Your task to perform on an android device: create a new album in the google photos Image 0: 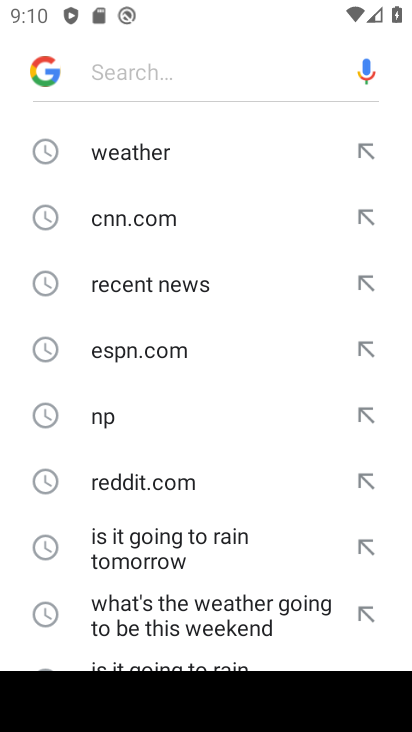
Step 0: press home button
Your task to perform on an android device: create a new album in the google photos Image 1: 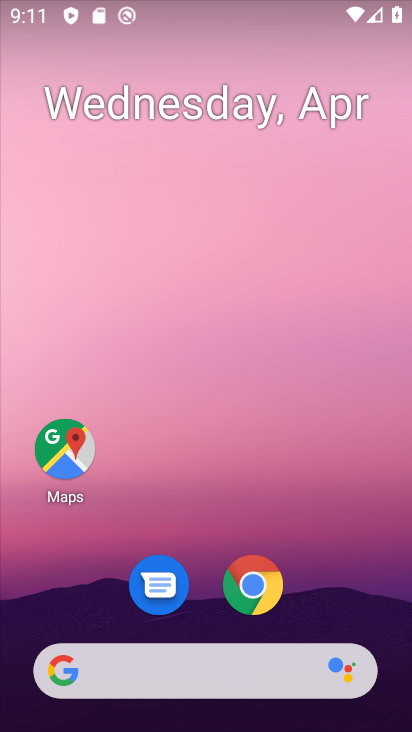
Step 1: drag from (322, 576) to (336, 99)
Your task to perform on an android device: create a new album in the google photos Image 2: 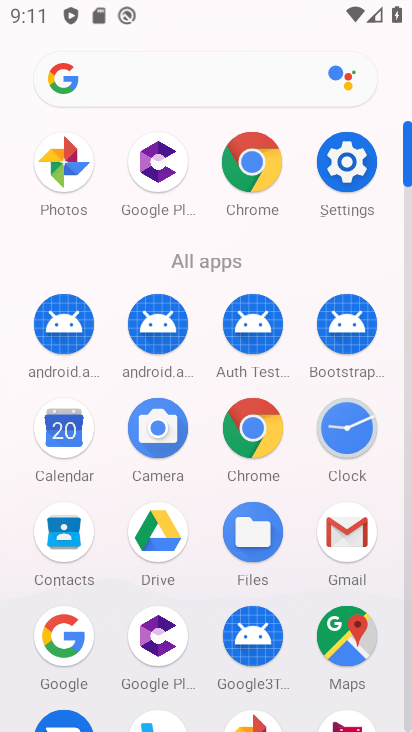
Step 2: click (72, 162)
Your task to perform on an android device: create a new album in the google photos Image 3: 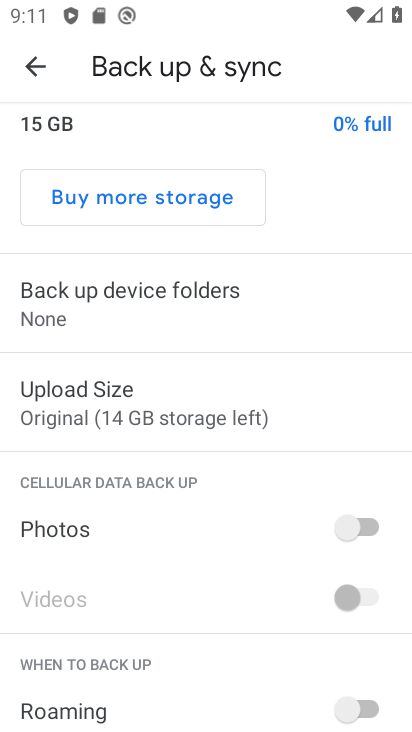
Step 3: click (36, 64)
Your task to perform on an android device: create a new album in the google photos Image 4: 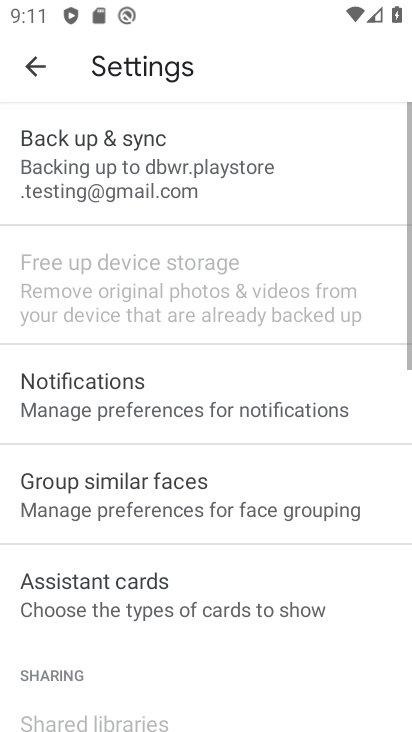
Step 4: click (36, 62)
Your task to perform on an android device: create a new album in the google photos Image 5: 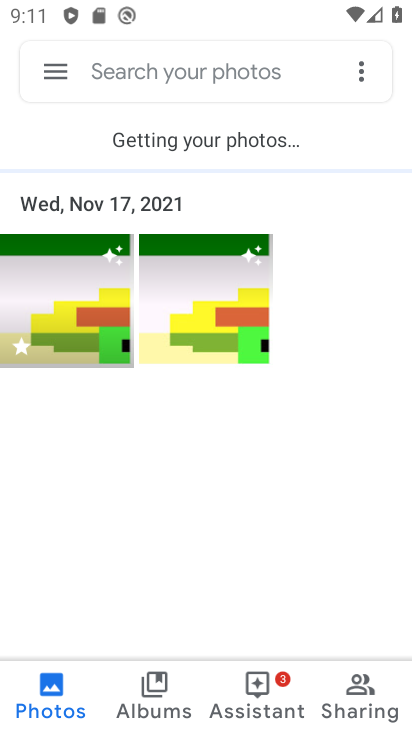
Step 5: click (160, 682)
Your task to perform on an android device: create a new album in the google photos Image 6: 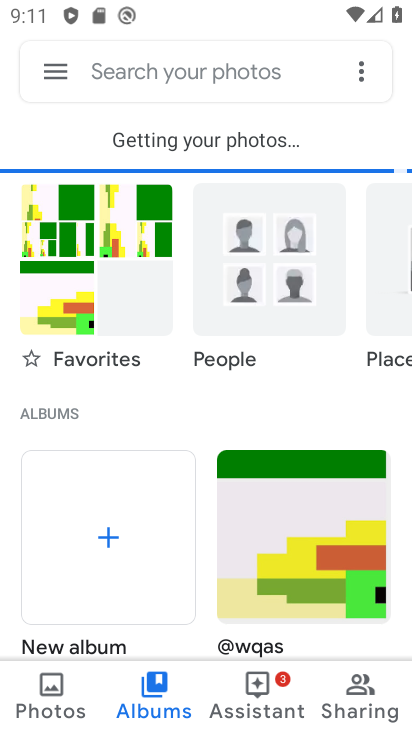
Step 6: click (105, 525)
Your task to perform on an android device: create a new album in the google photos Image 7: 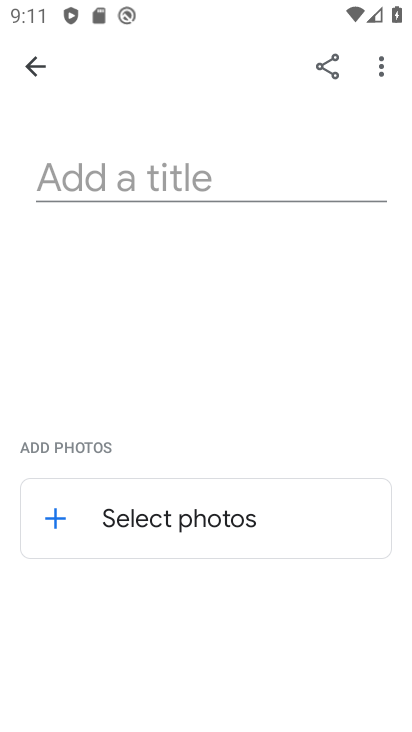
Step 7: click (248, 181)
Your task to perform on an android device: create a new album in the google photos Image 8: 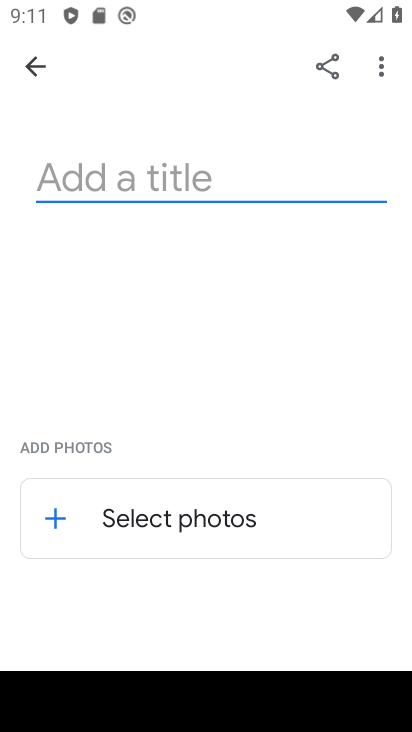
Step 8: type "Bharatvarsh Vrindavan"
Your task to perform on an android device: create a new album in the google photos Image 9: 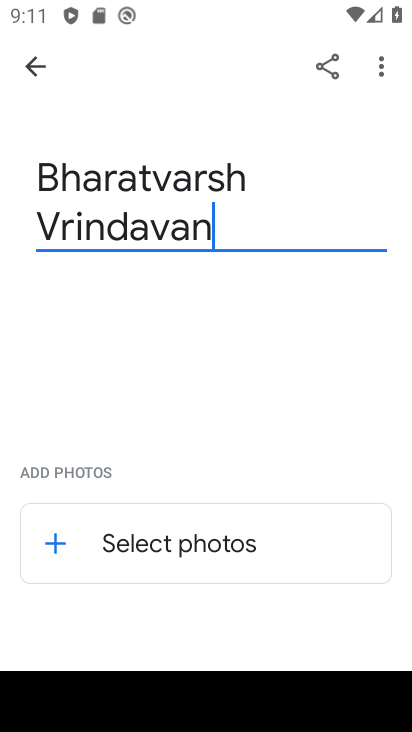
Step 9: click (197, 535)
Your task to perform on an android device: create a new album in the google photos Image 10: 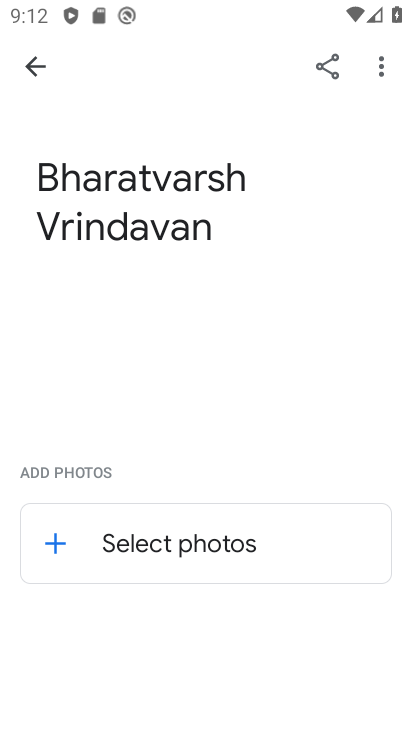
Step 10: click (61, 542)
Your task to perform on an android device: create a new album in the google photos Image 11: 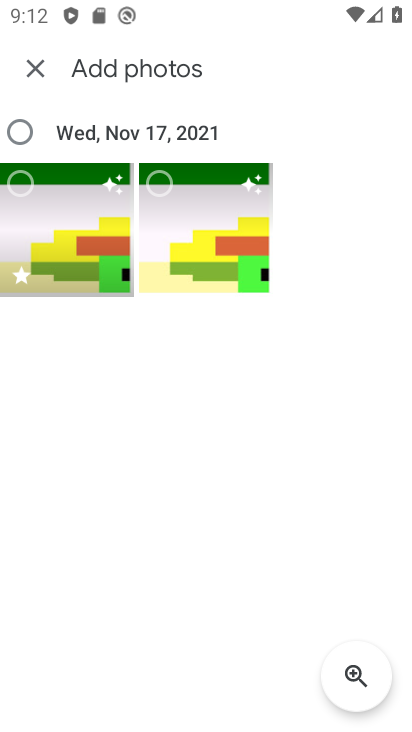
Step 11: click (161, 183)
Your task to perform on an android device: create a new album in the google photos Image 12: 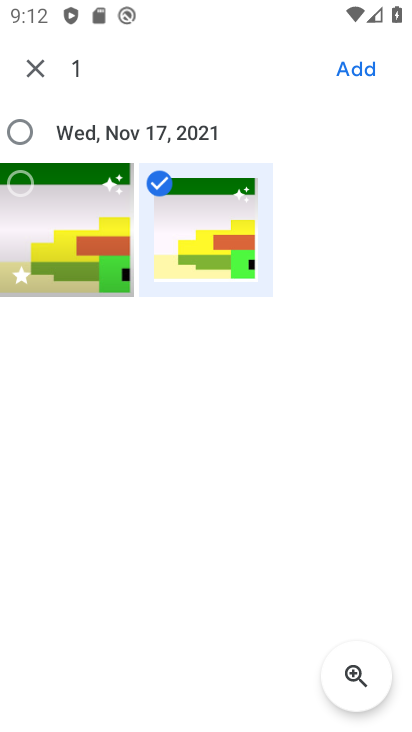
Step 12: click (366, 64)
Your task to perform on an android device: create a new album in the google photos Image 13: 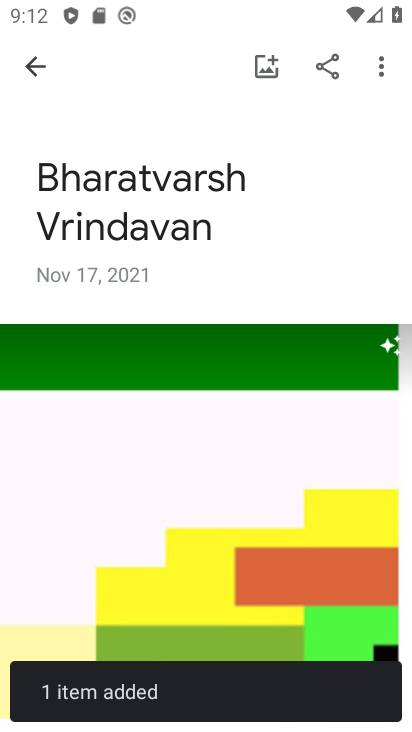
Step 13: task complete